Your task to perform on an android device: What is the recent news? Image 0: 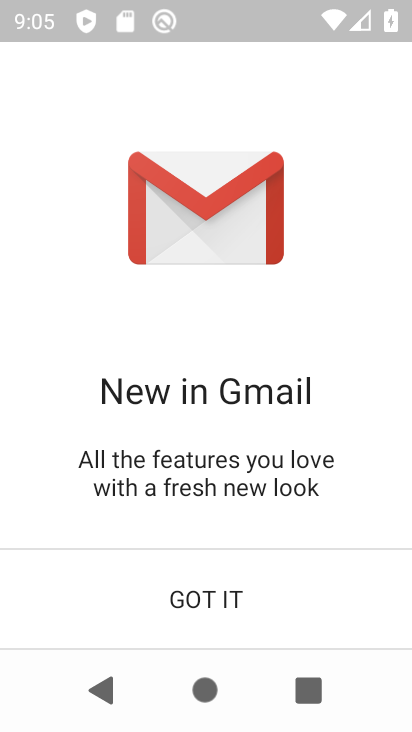
Step 0: press home button
Your task to perform on an android device: What is the recent news? Image 1: 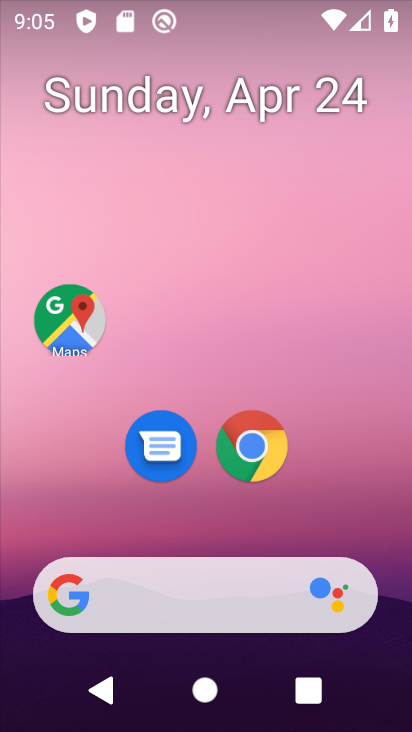
Step 1: task complete